Your task to perform on an android device: toggle javascript in the chrome app Image 0: 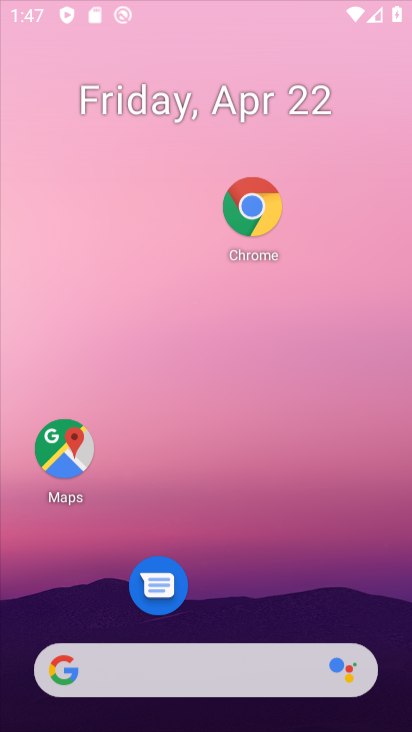
Step 0: click (173, 156)
Your task to perform on an android device: toggle javascript in the chrome app Image 1: 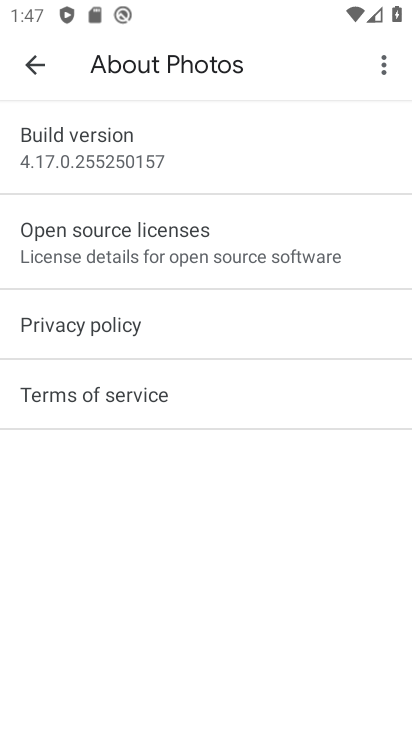
Step 1: drag from (159, 535) to (156, 277)
Your task to perform on an android device: toggle javascript in the chrome app Image 2: 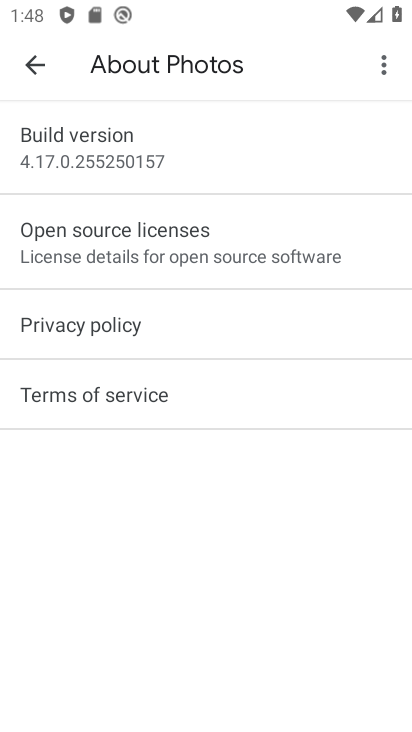
Step 2: click (159, 66)
Your task to perform on an android device: toggle javascript in the chrome app Image 3: 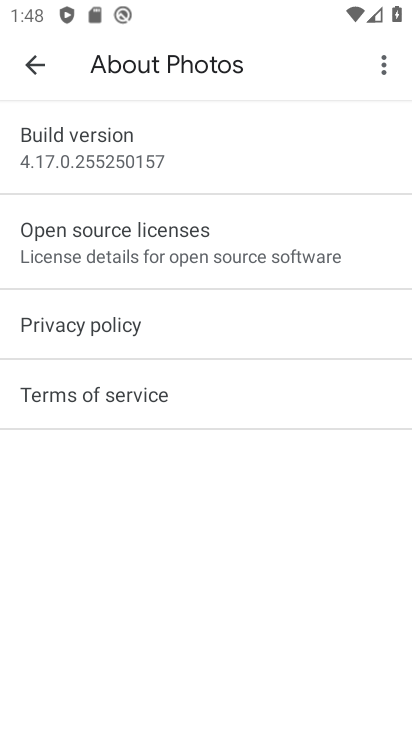
Step 3: drag from (250, 543) to (227, 220)
Your task to perform on an android device: toggle javascript in the chrome app Image 4: 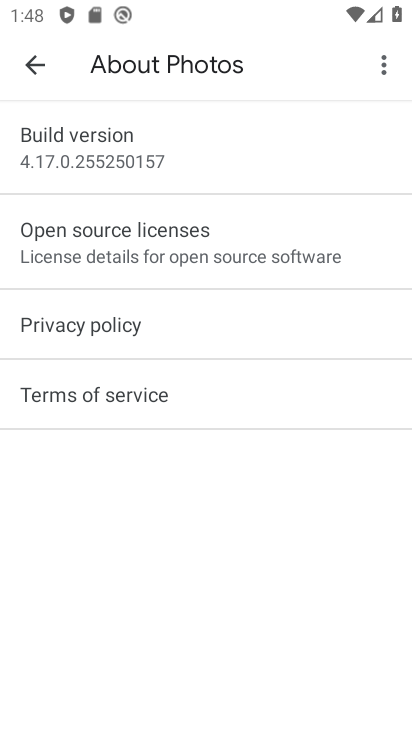
Step 4: drag from (199, 501) to (206, 240)
Your task to perform on an android device: toggle javascript in the chrome app Image 5: 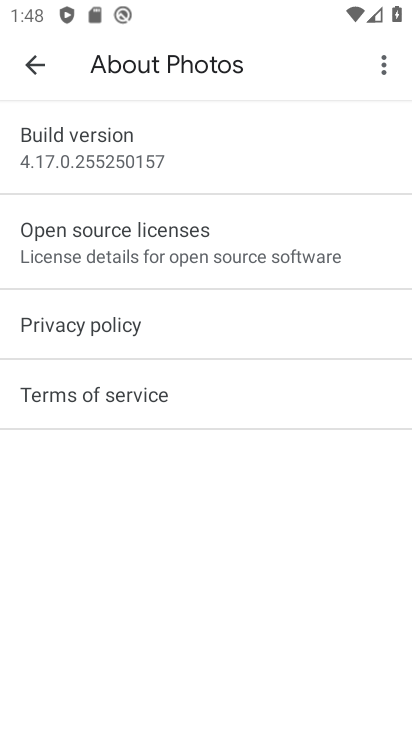
Step 5: drag from (209, 509) to (212, 324)
Your task to perform on an android device: toggle javascript in the chrome app Image 6: 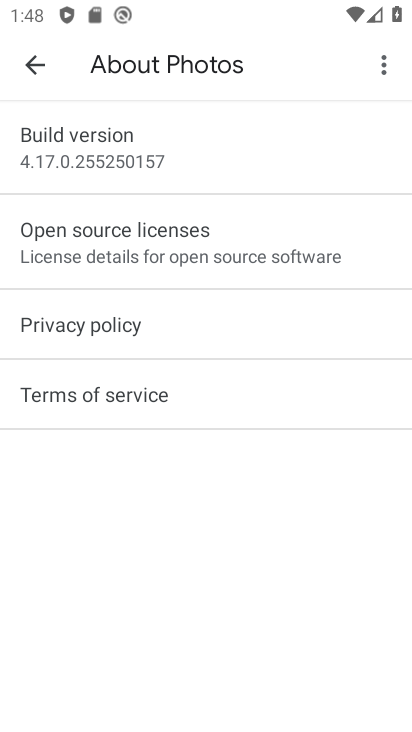
Step 6: drag from (204, 445) to (216, 208)
Your task to perform on an android device: toggle javascript in the chrome app Image 7: 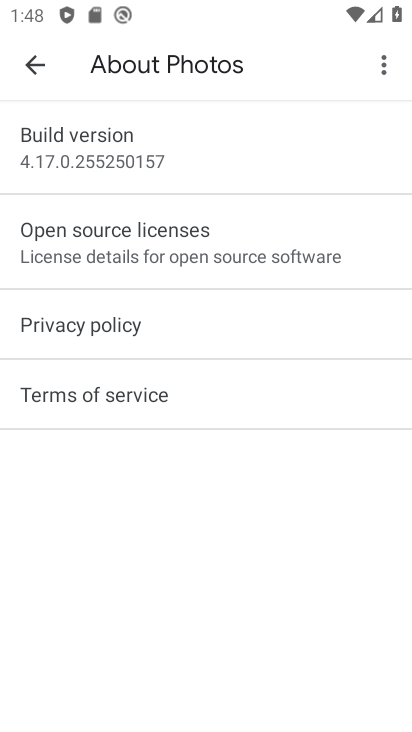
Step 7: press home button
Your task to perform on an android device: toggle javascript in the chrome app Image 8: 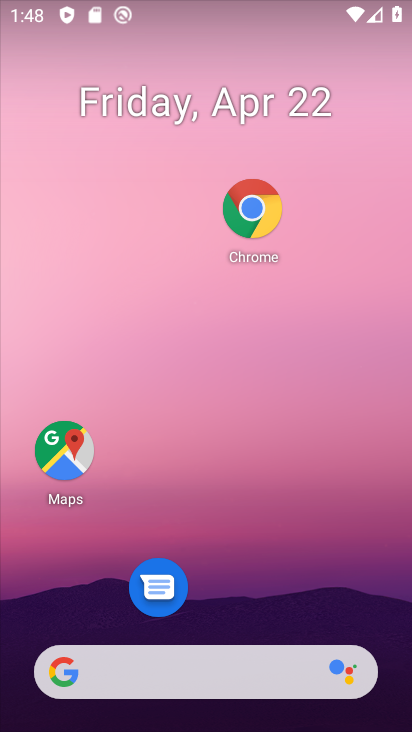
Step 8: click (241, 225)
Your task to perform on an android device: toggle javascript in the chrome app Image 9: 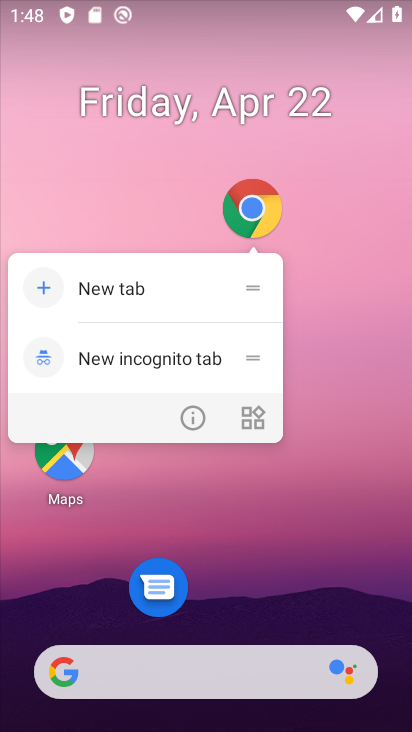
Step 9: click (203, 424)
Your task to perform on an android device: toggle javascript in the chrome app Image 10: 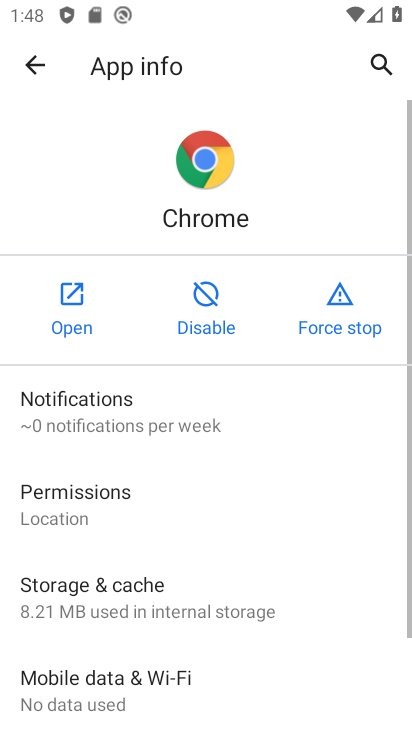
Step 10: click (68, 329)
Your task to perform on an android device: toggle javascript in the chrome app Image 11: 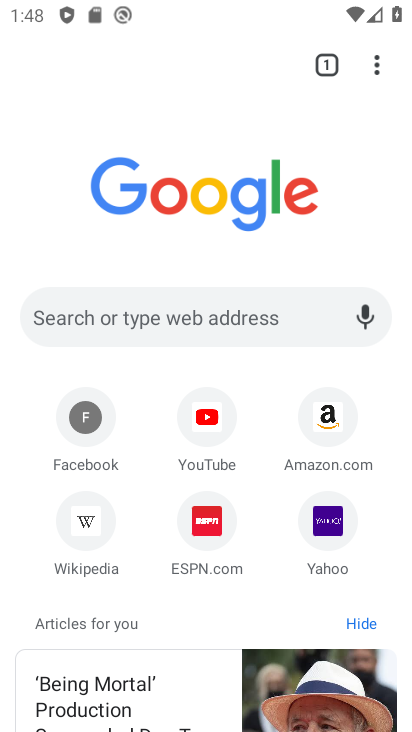
Step 11: drag from (372, 62) to (202, 538)
Your task to perform on an android device: toggle javascript in the chrome app Image 12: 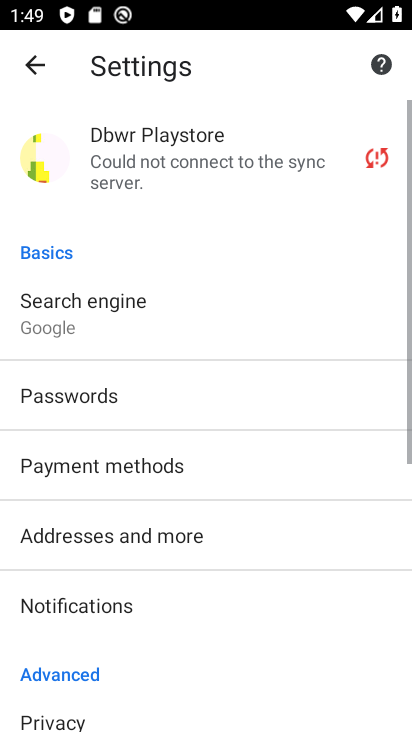
Step 12: drag from (175, 505) to (223, 221)
Your task to perform on an android device: toggle javascript in the chrome app Image 13: 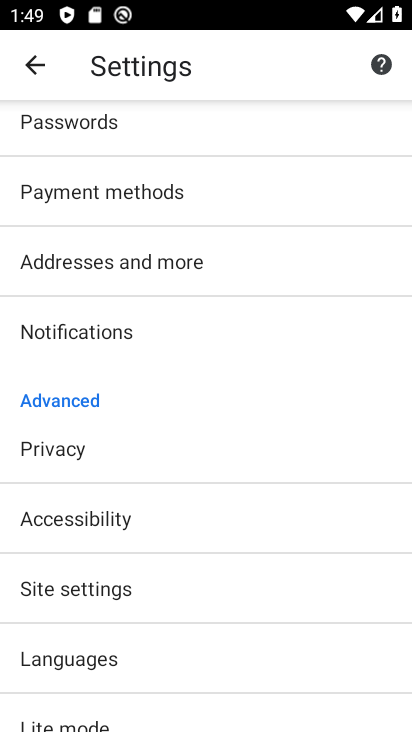
Step 13: drag from (150, 643) to (265, 302)
Your task to perform on an android device: toggle javascript in the chrome app Image 14: 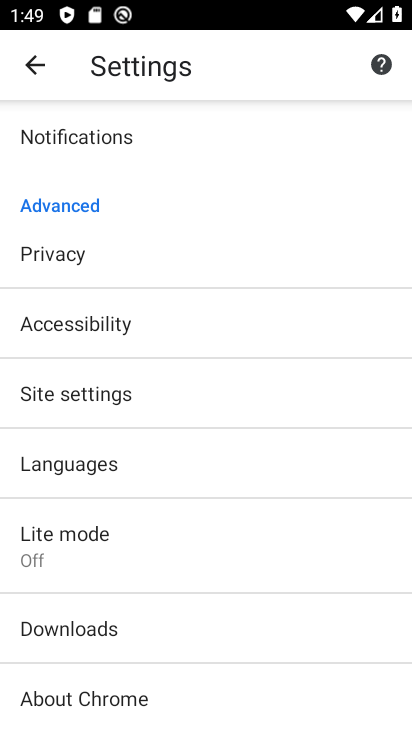
Step 14: click (140, 389)
Your task to perform on an android device: toggle javascript in the chrome app Image 15: 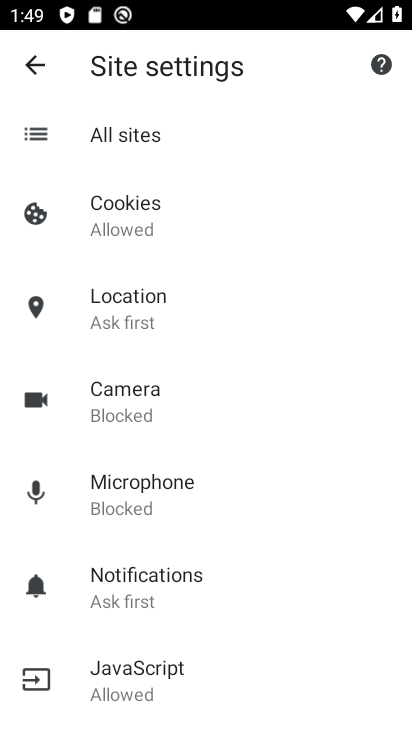
Step 15: drag from (255, 602) to (269, 288)
Your task to perform on an android device: toggle javascript in the chrome app Image 16: 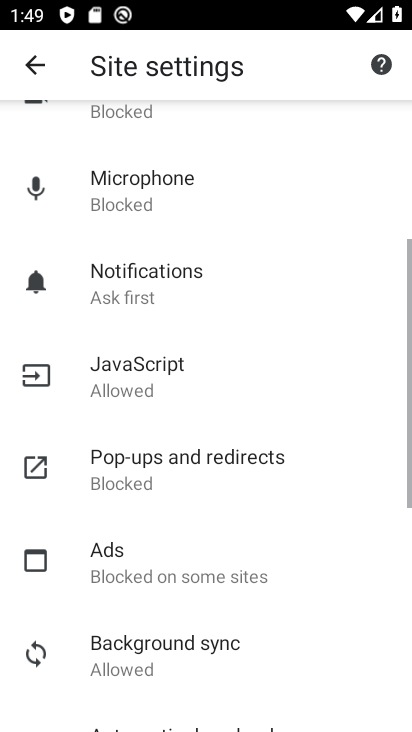
Step 16: click (189, 379)
Your task to perform on an android device: toggle javascript in the chrome app Image 17: 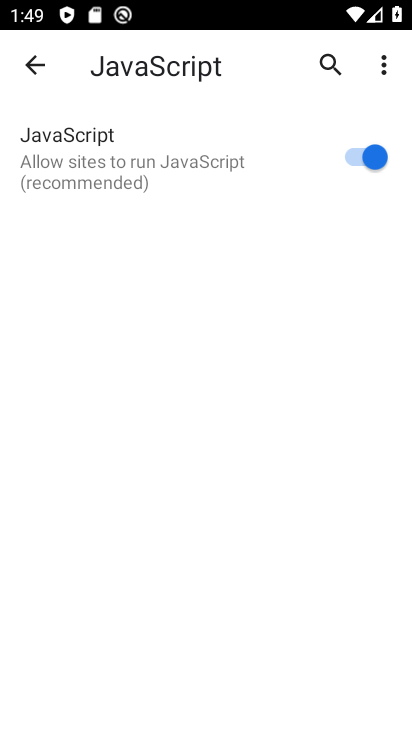
Step 17: click (375, 150)
Your task to perform on an android device: toggle javascript in the chrome app Image 18: 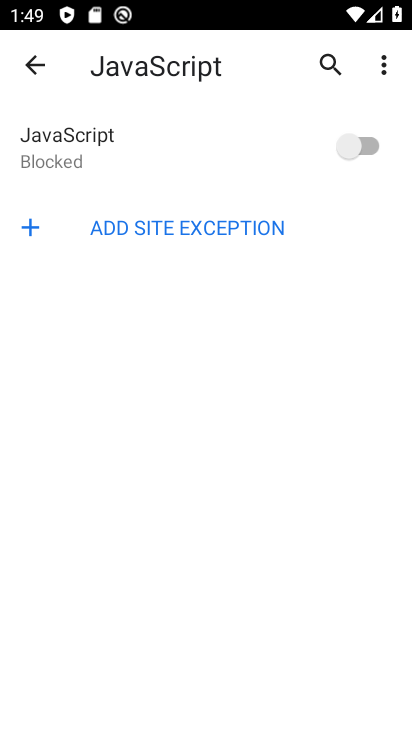
Step 18: task complete